Your task to perform on an android device: turn off notifications in google photos Image 0: 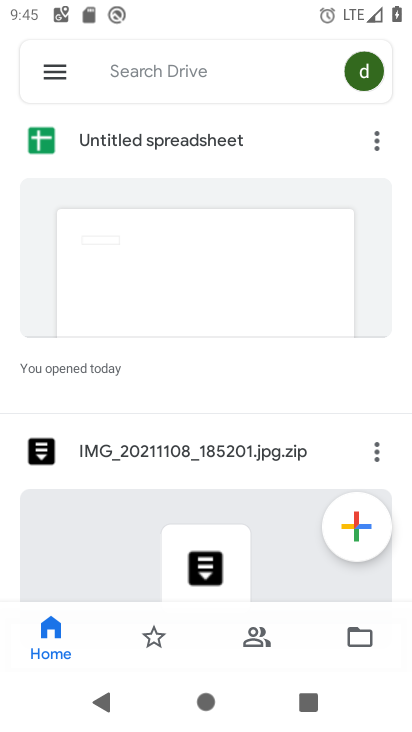
Step 0: press home button
Your task to perform on an android device: turn off notifications in google photos Image 1: 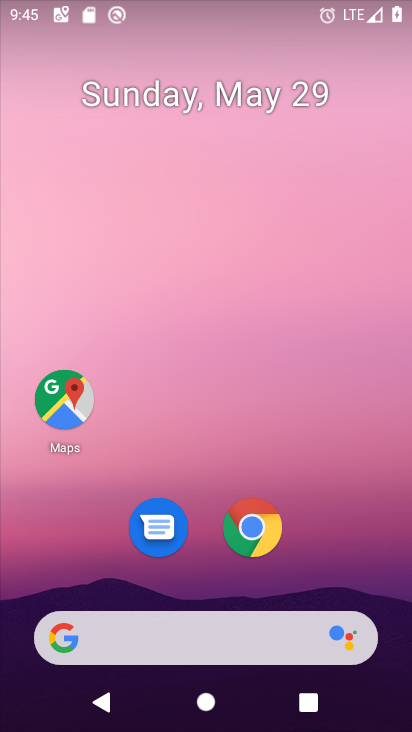
Step 1: drag from (204, 564) to (220, 138)
Your task to perform on an android device: turn off notifications in google photos Image 2: 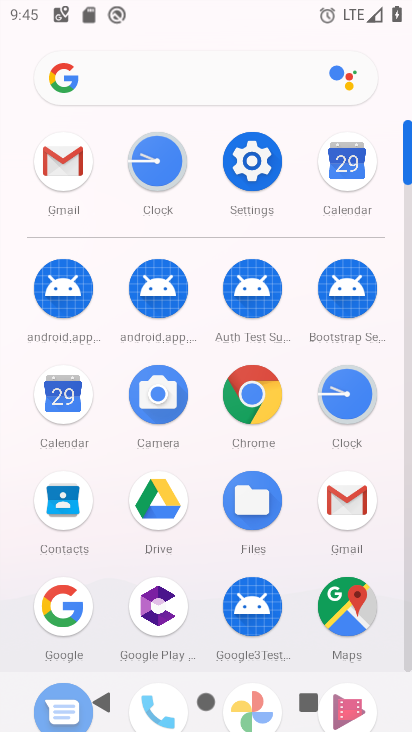
Step 2: drag from (298, 622) to (303, 128)
Your task to perform on an android device: turn off notifications in google photos Image 3: 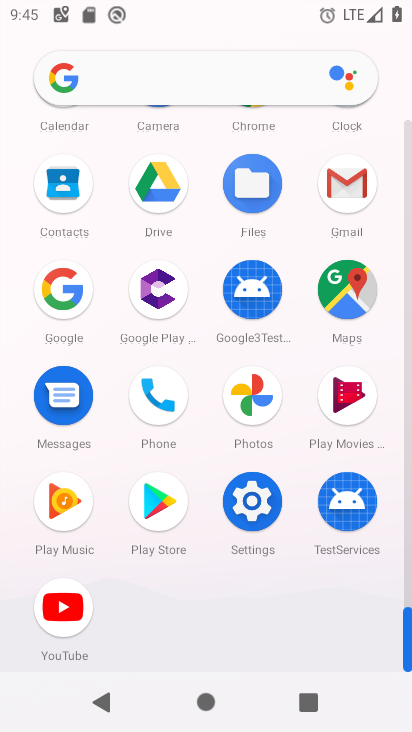
Step 3: click (250, 385)
Your task to perform on an android device: turn off notifications in google photos Image 4: 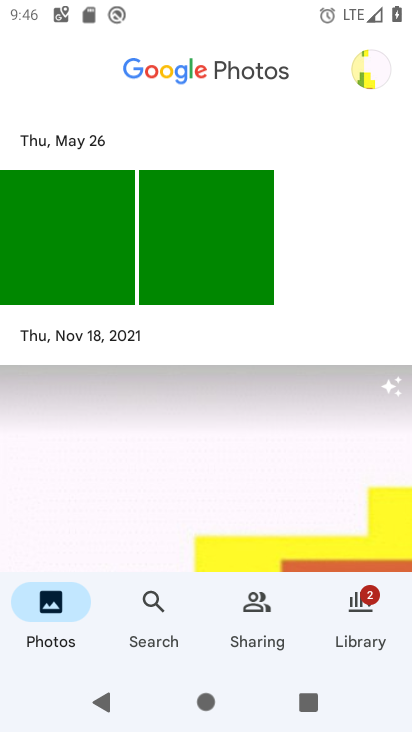
Step 4: click (361, 60)
Your task to perform on an android device: turn off notifications in google photos Image 5: 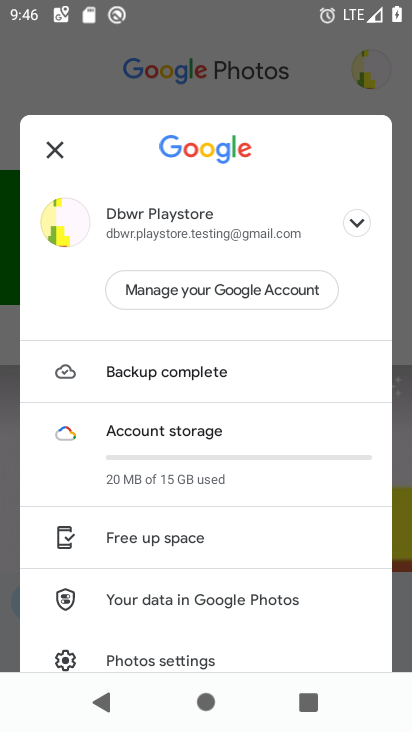
Step 5: click (228, 652)
Your task to perform on an android device: turn off notifications in google photos Image 6: 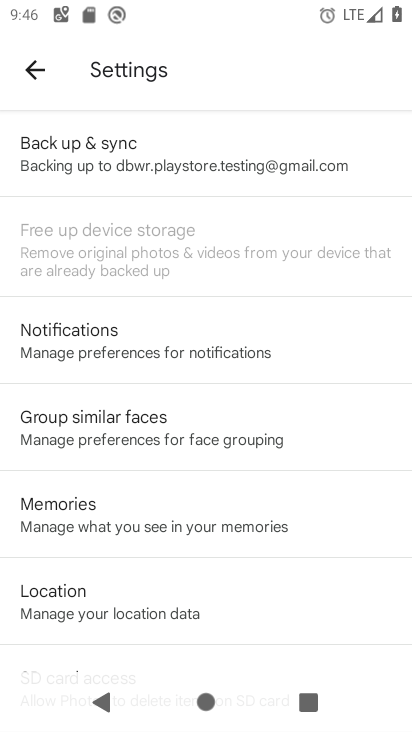
Step 6: click (129, 334)
Your task to perform on an android device: turn off notifications in google photos Image 7: 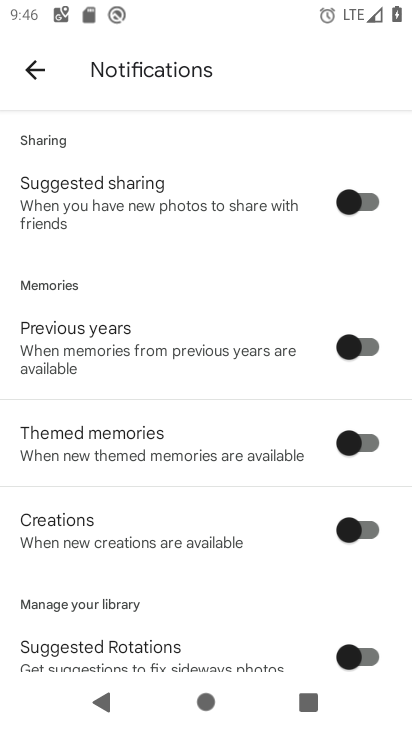
Step 7: drag from (190, 574) to (211, 87)
Your task to perform on an android device: turn off notifications in google photos Image 8: 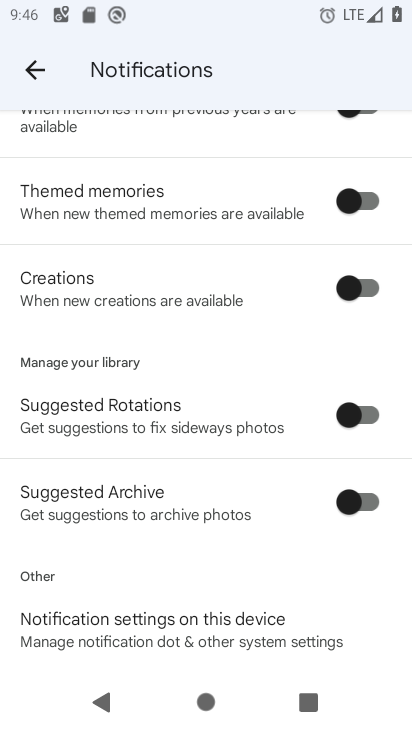
Step 8: click (287, 611)
Your task to perform on an android device: turn off notifications in google photos Image 9: 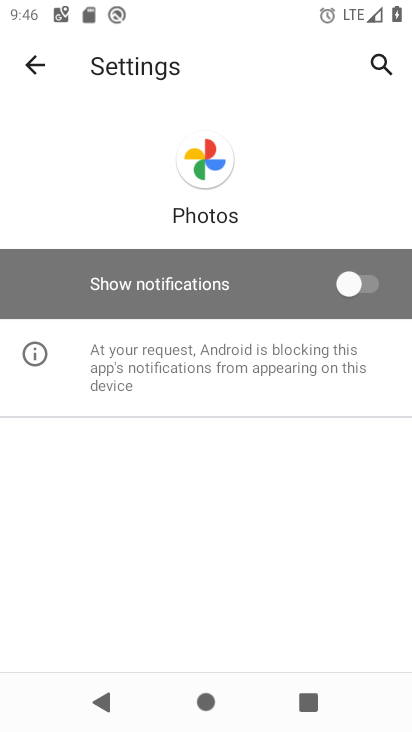
Step 9: task complete